Your task to perform on an android device: open app "Flipkart Online Shopping App" (install if not already installed) and enter user name: "fostered@gmail.com" and password: "negotiated" Image 0: 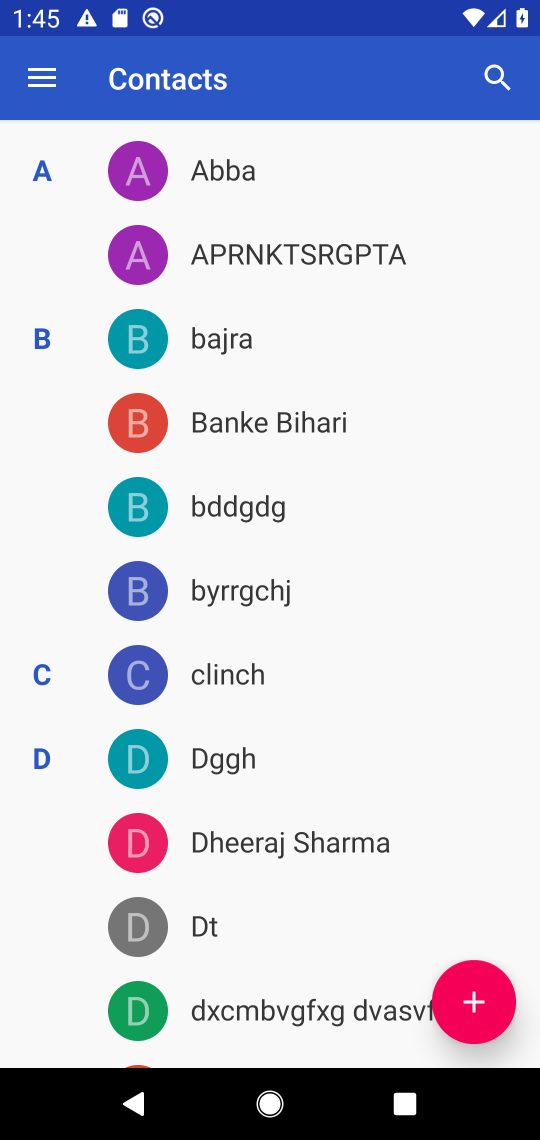
Step 0: press back button
Your task to perform on an android device: open app "Flipkart Online Shopping App" (install if not already installed) and enter user name: "fostered@gmail.com" and password: "negotiated" Image 1: 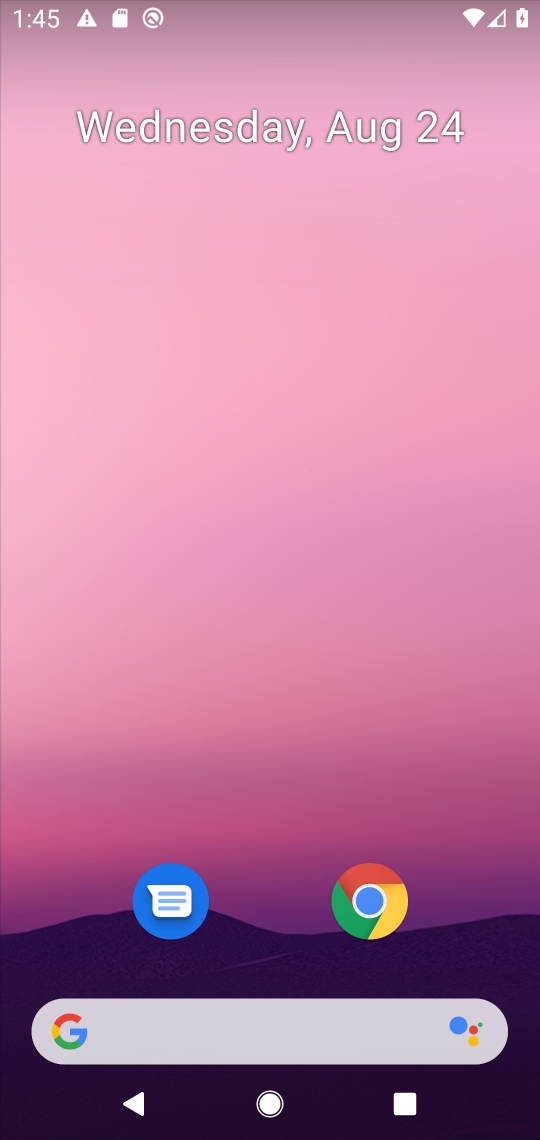
Step 1: drag from (245, 902) to (387, 2)
Your task to perform on an android device: open app "Flipkart Online Shopping App" (install if not already installed) and enter user name: "fostered@gmail.com" and password: "negotiated" Image 2: 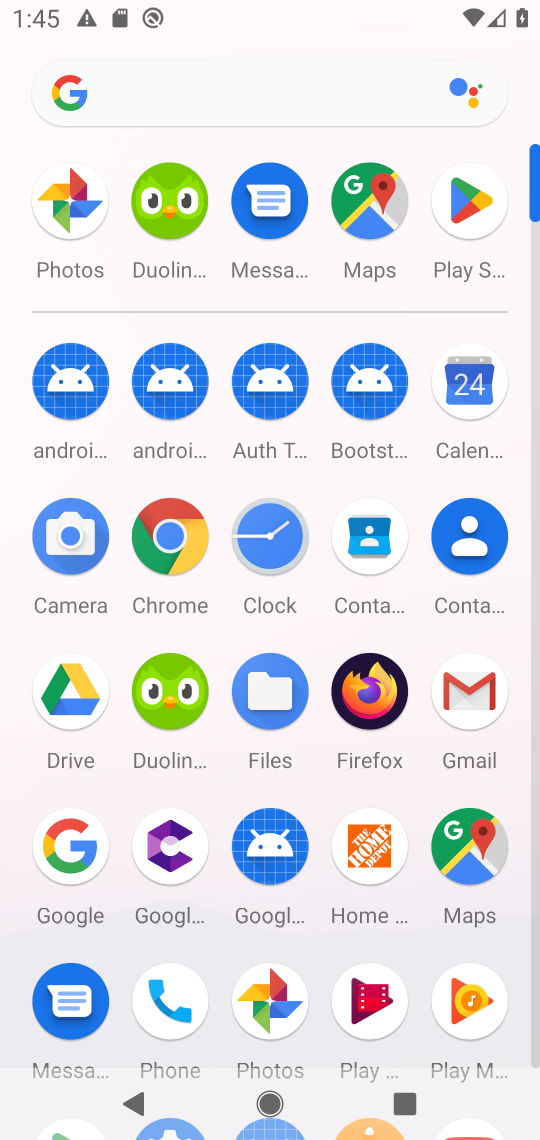
Step 2: click (476, 211)
Your task to perform on an android device: open app "Flipkart Online Shopping App" (install if not already installed) and enter user name: "fostered@gmail.com" and password: "negotiated" Image 3: 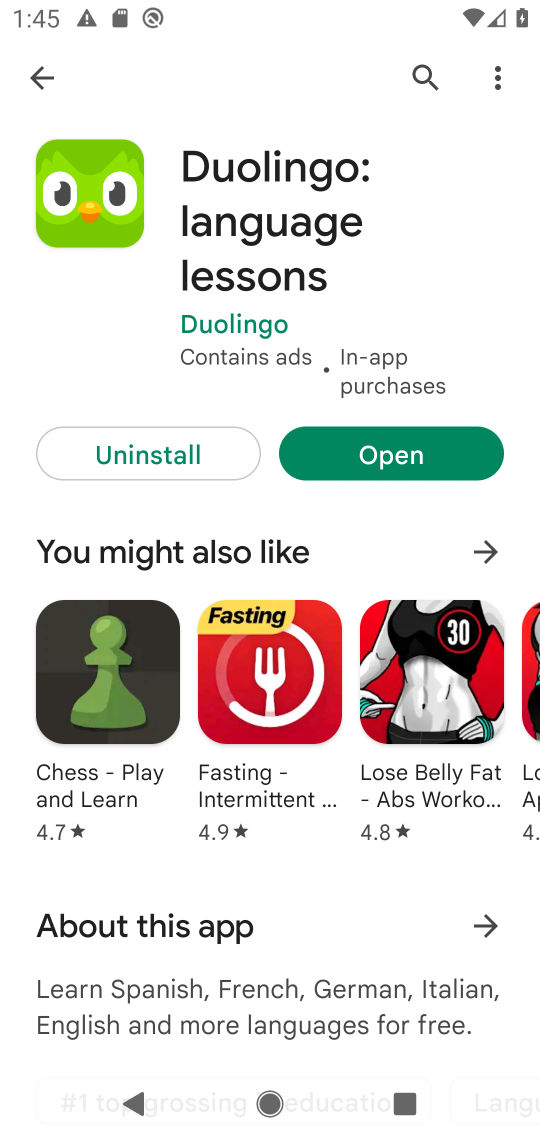
Step 3: click (430, 76)
Your task to perform on an android device: open app "Flipkart Online Shopping App" (install if not already installed) and enter user name: "fostered@gmail.com" and password: "negotiated" Image 4: 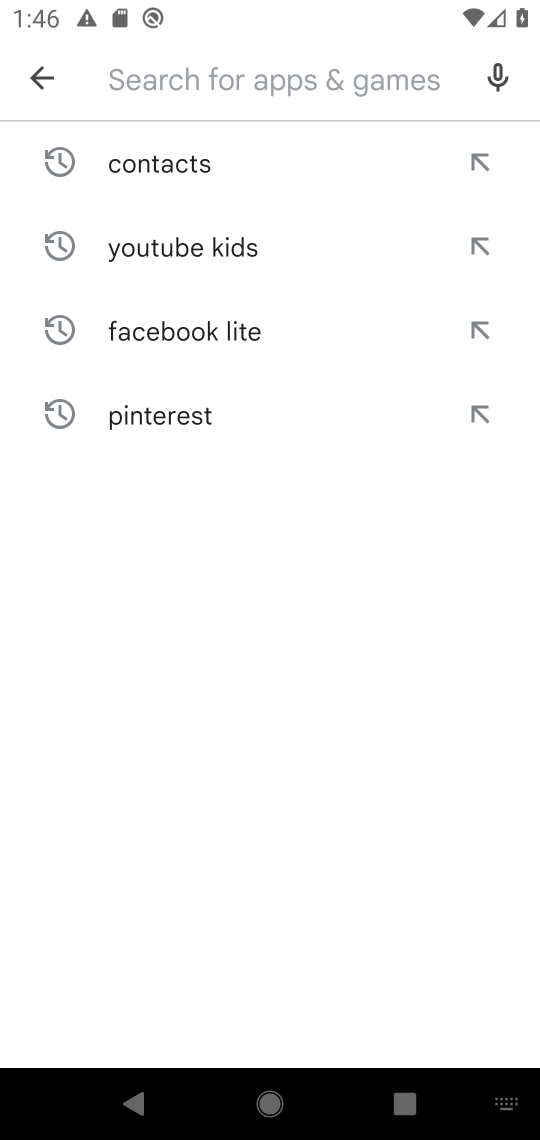
Step 4: click (185, 91)
Your task to perform on an android device: open app "Flipkart Online Shopping App" (install if not already installed) and enter user name: "fostered@gmail.com" and password: "negotiated" Image 5: 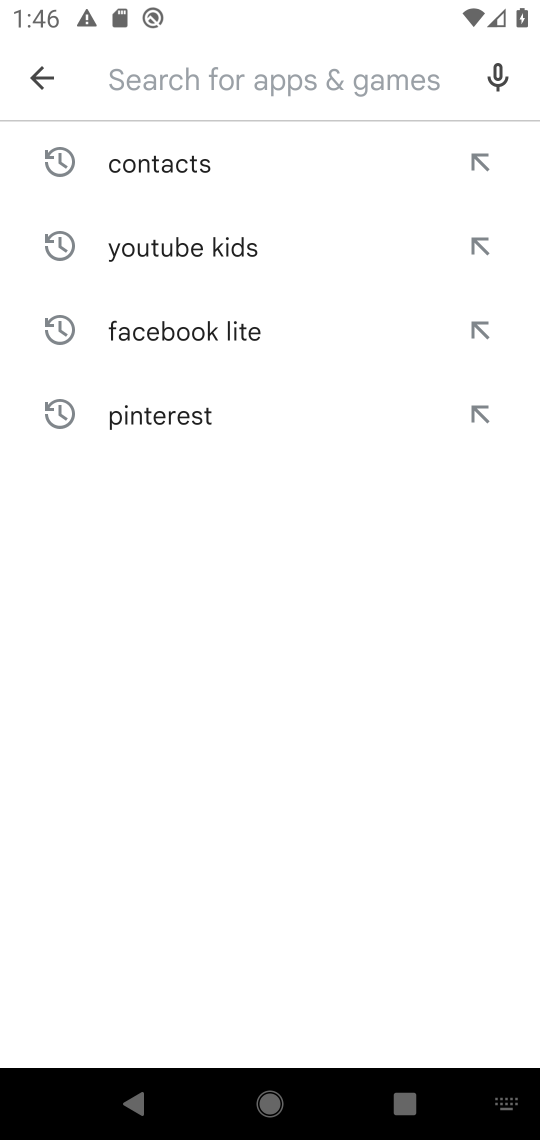
Step 5: type "Flipkart Online Shopping App"
Your task to perform on an android device: open app "Flipkart Online Shopping App" (install if not already installed) and enter user name: "fostered@gmail.com" and password: "negotiated" Image 6: 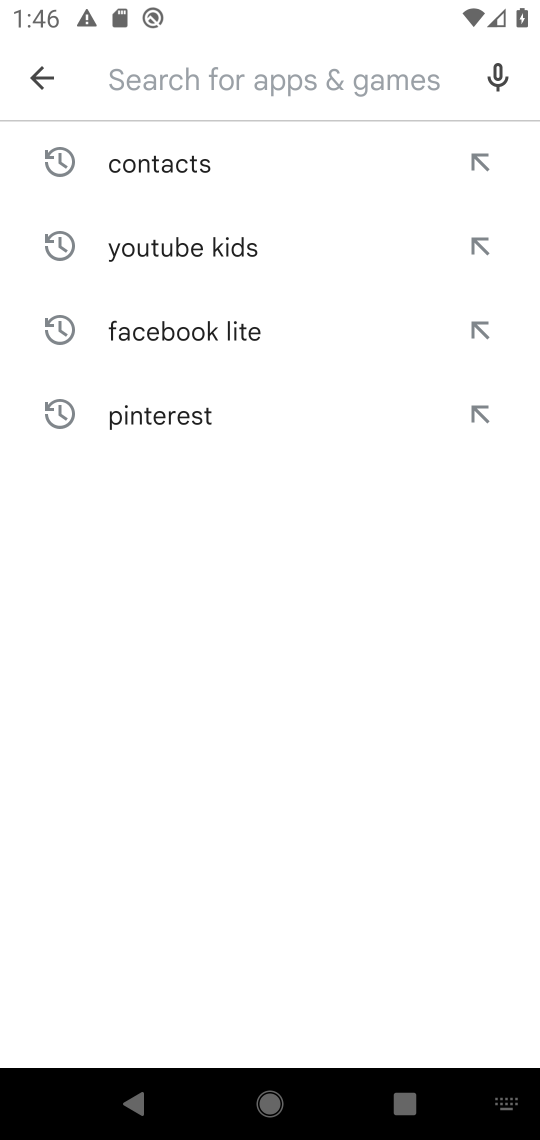
Step 6: click (272, 686)
Your task to perform on an android device: open app "Flipkart Online Shopping App" (install if not already installed) and enter user name: "fostered@gmail.com" and password: "negotiated" Image 7: 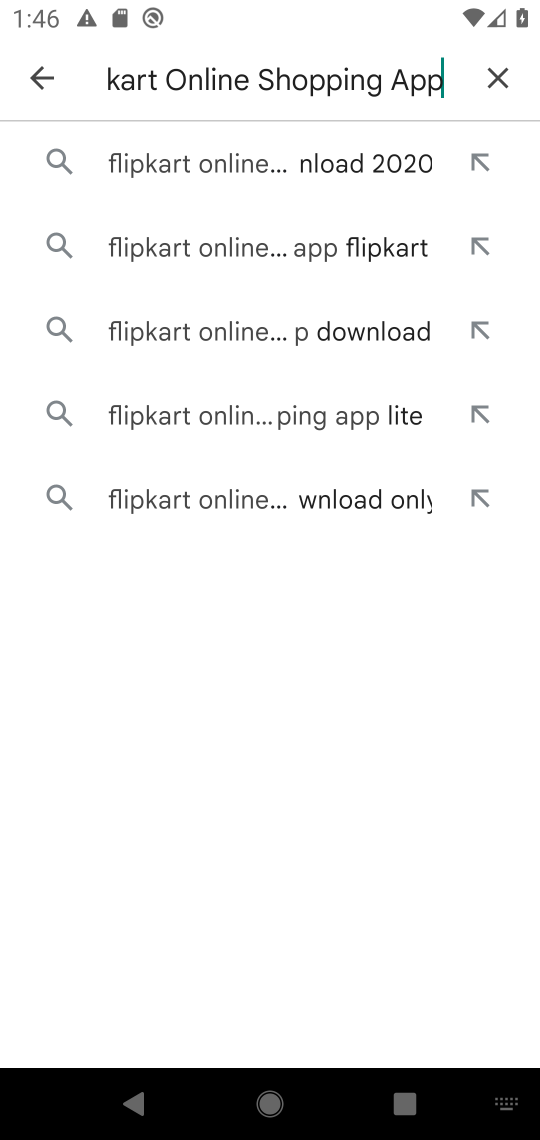
Step 7: click (243, 172)
Your task to perform on an android device: open app "Flipkart Online Shopping App" (install if not already installed) and enter user name: "fostered@gmail.com" and password: "negotiated" Image 8: 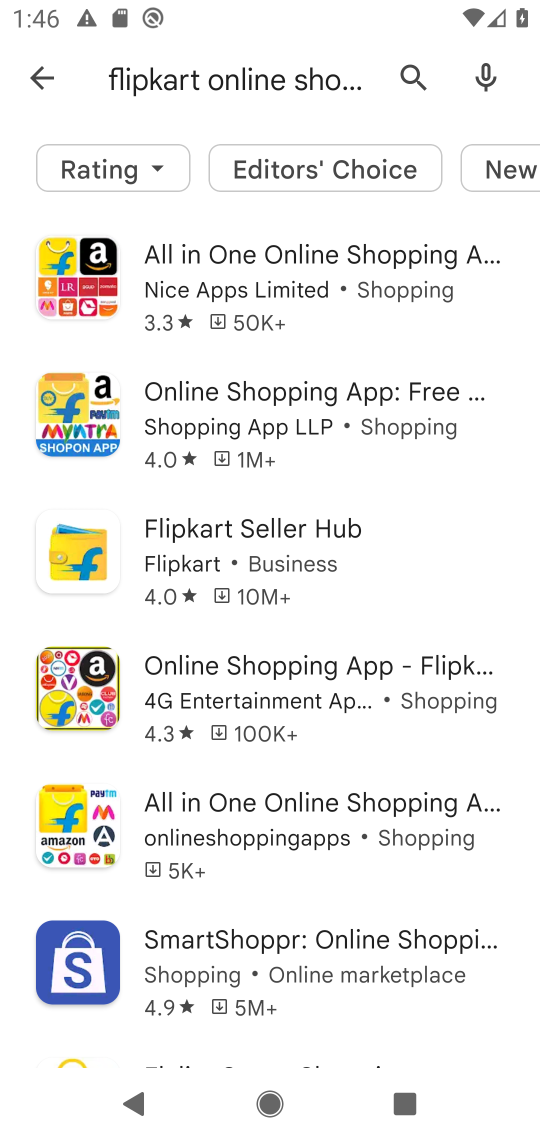
Step 8: task complete